Your task to perform on an android device: Is it going to rain today? Image 0: 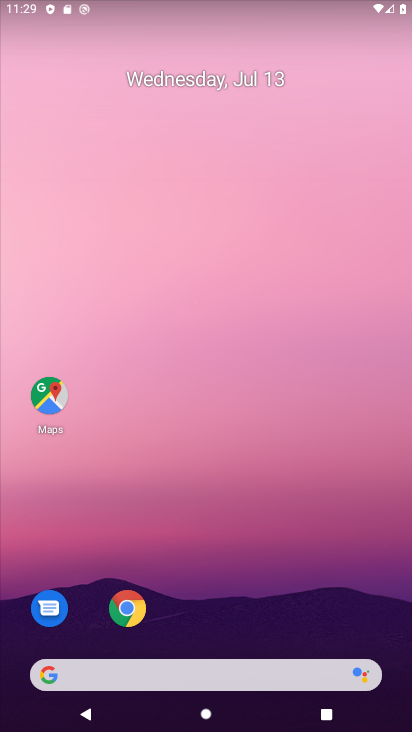
Step 0: drag from (193, 634) to (238, 355)
Your task to perform on an android device: Is it going to rain today? Image 1: 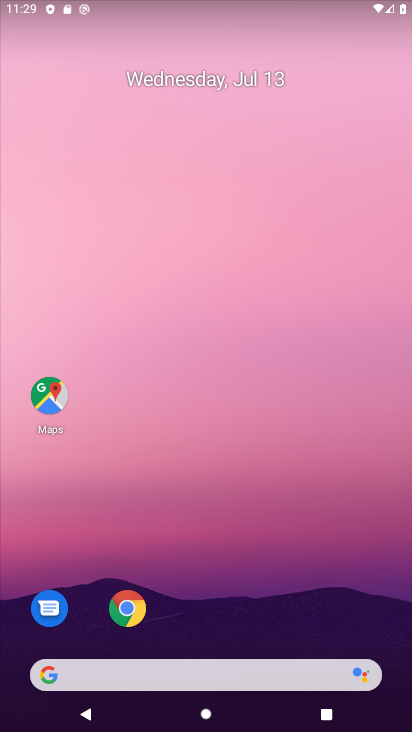
Step 1: drag from (196, 639) to (150, 246)
Your task to perform on an android device: Is it going to rain today? Image 2: 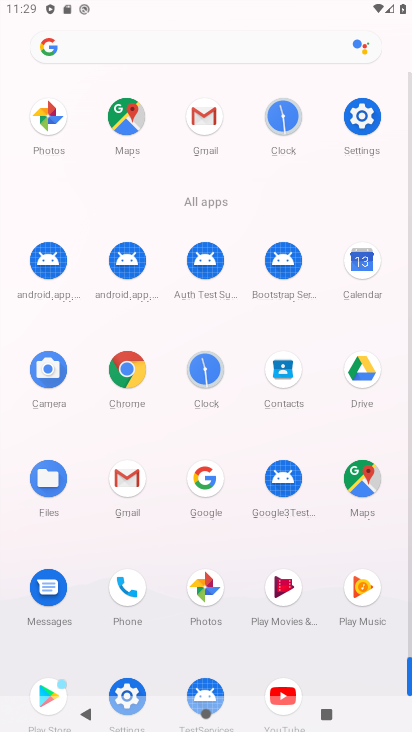
Step 2: drag from (171, 631) to (179, 341)
Your task to perform on an android device: Is it going to rain today? Image 3: 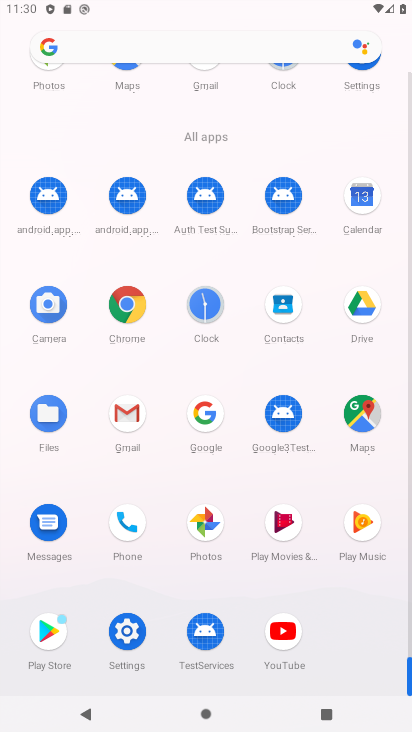
Step 3: click (136, 42)
Your task to perform on an android device: Is it going to rain today? Image 4: 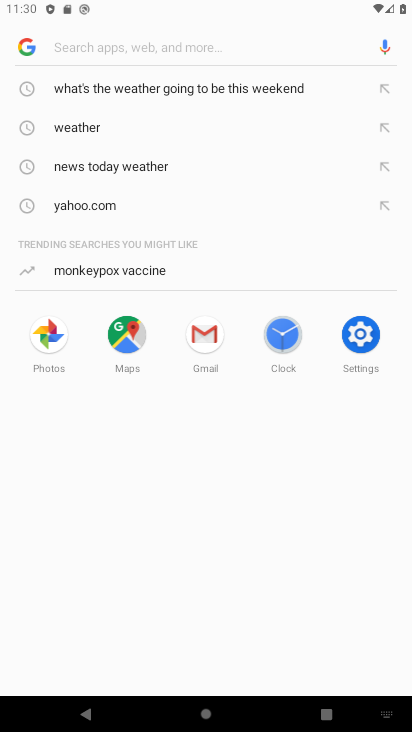
Step 4: click (115, 35)
Your task to perform on an android device: Is it going to rain today? Image 5: 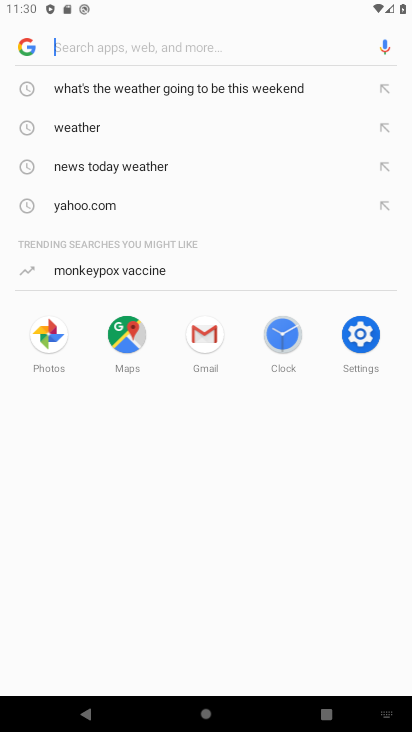
Step 5: type "Is it going to rain today?"
Your task to perform on an android device: Is it going to rain today? Image 6: 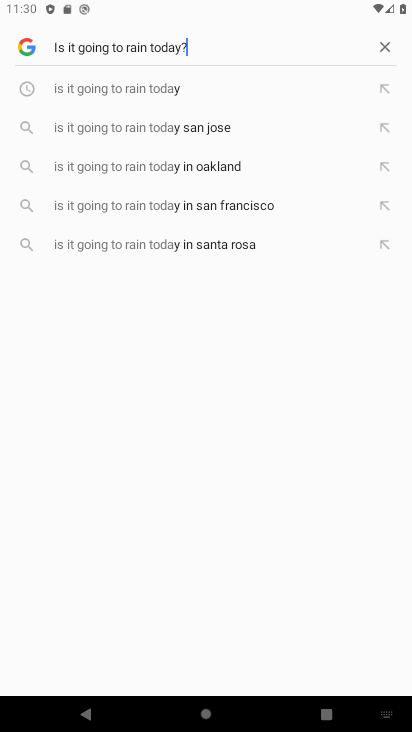
Step 6: type ""
Your task to perform on an android device: Is it going to rain today? Image 7: 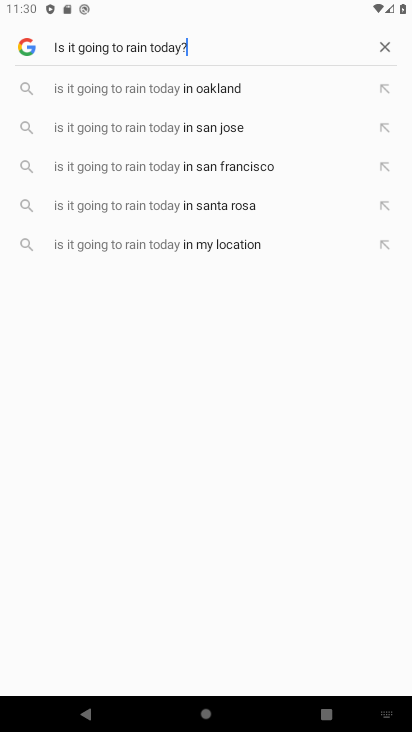
Step 7: click (196, 49)
Your task to perform on an android device: Is it going to rain today? Image 8: 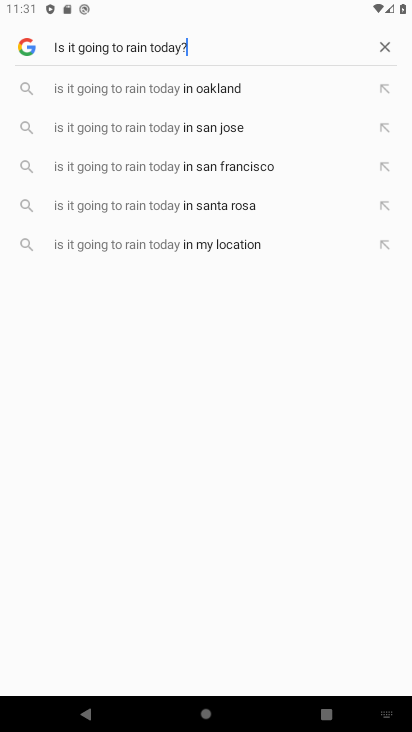
Step 8: task complete